Your task to perform on an android device: Turn on the flashlight Image 0: 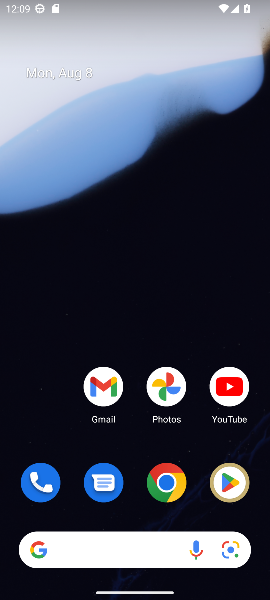
Step 0: drag from (116, 0) to (68, 502)
Your task to perform on an android device: Turn on the flashlight Image 1: 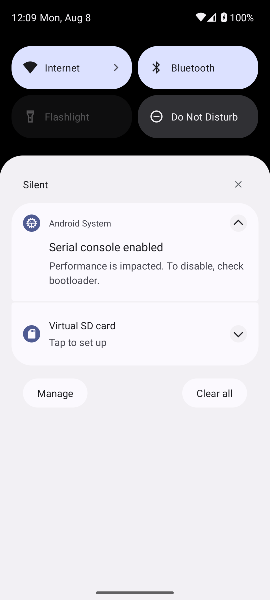
Step 1: task complete